Your task to perform on an android device: Open internet settings Image 0: 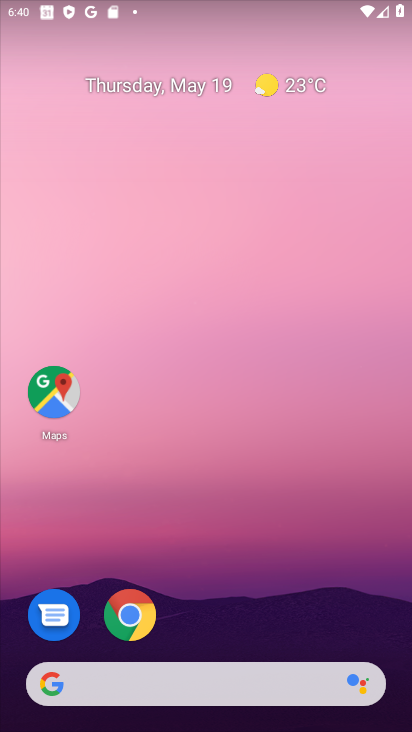
Step 0: drag from (337, 614) to (285, 52)
Your task to perform on an android device: Open internet settings Image 1: 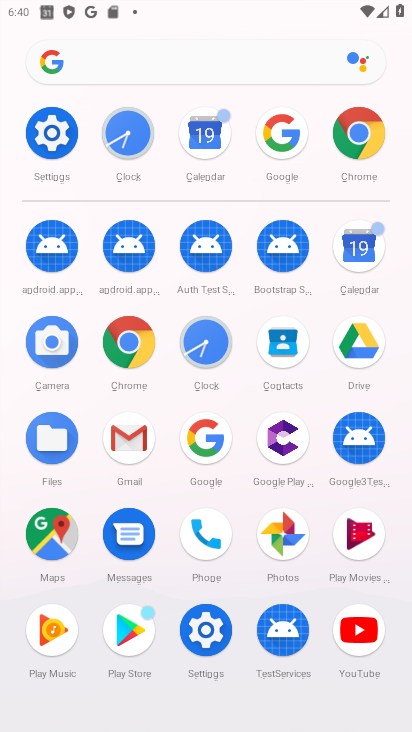
Step 1: click (204, 609)
Your task to perform on an android device: Open internet settings Image 2: 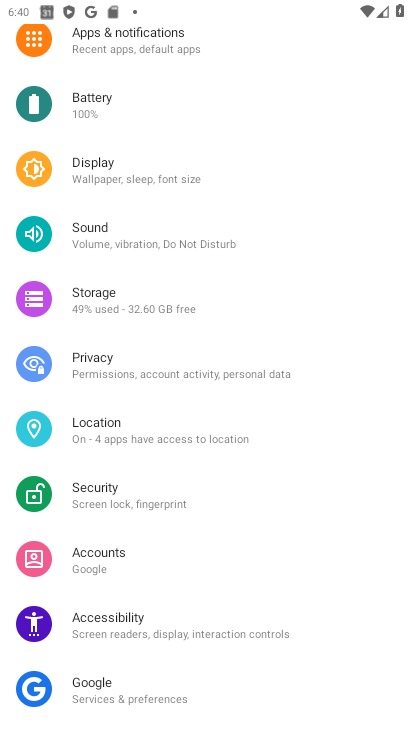
Step 2: drag from (205, 95) to (268, 593)
Your task to perform on an android device: Open internet settings Image 3: 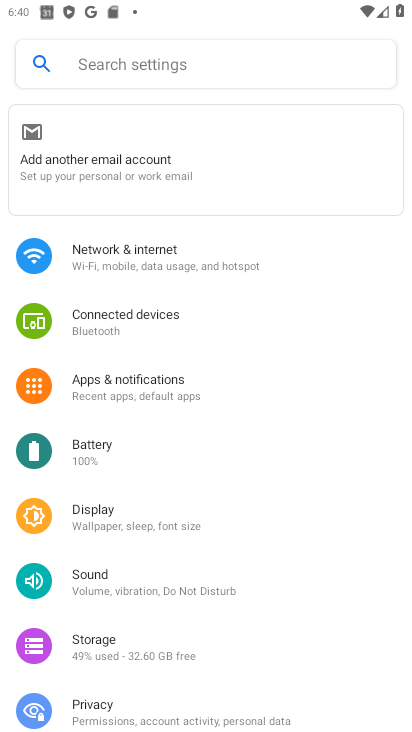
Step 3: click (208, 267)
Your task to perform on an android device: Open internet settings Image 4: 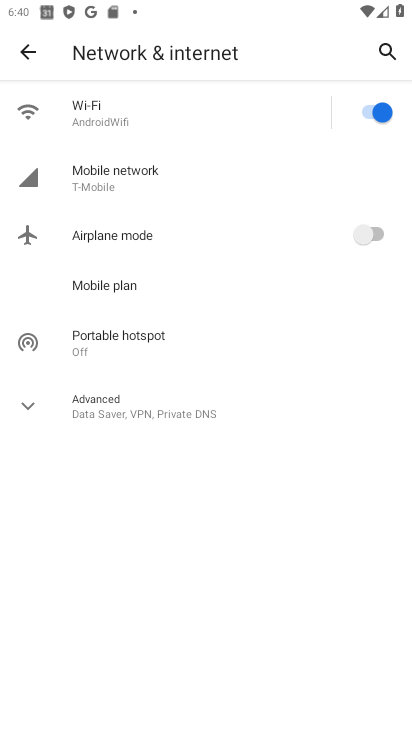
Step 4: task complete